Your task to perform on an android device: find which apps use the phone's location Image 0: 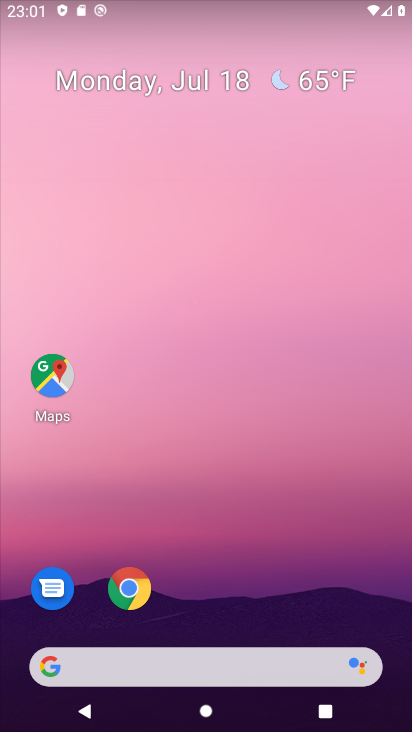
Step 0: press home button
Your task to perform on an android device: find which apps use the phone's location Image 1: 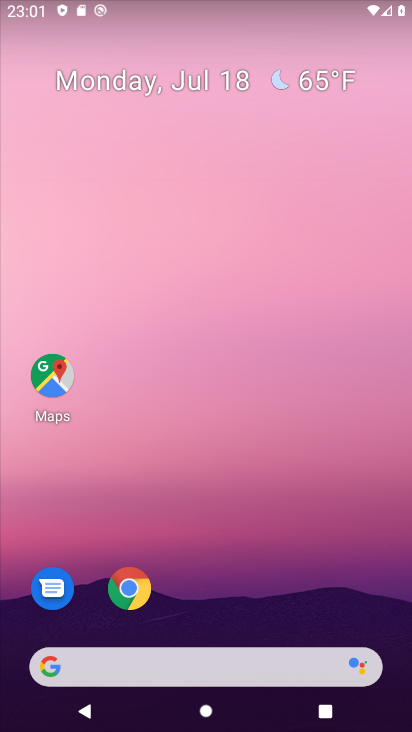
Step 1: drag from (299, 608) to (318, 116)
Your task to perform on an android device: find which apps use the phone's location Image 2: 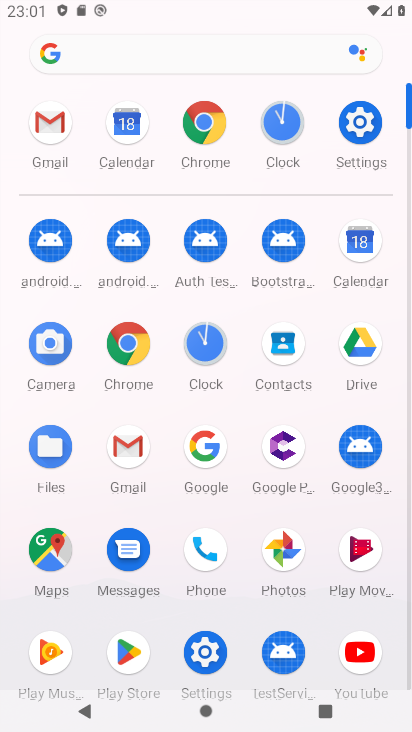
Step 2: click (358, 120)
Your task to perform on an android device: find which apps use the phone's location Image 3: 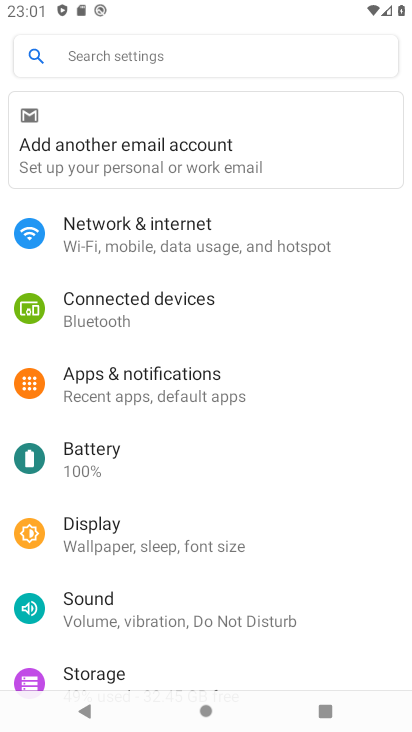
Step 3: drag from (220, 465) to (205, 108)
Your task to perform on an android device: find which apps use the phone's location Image 4: 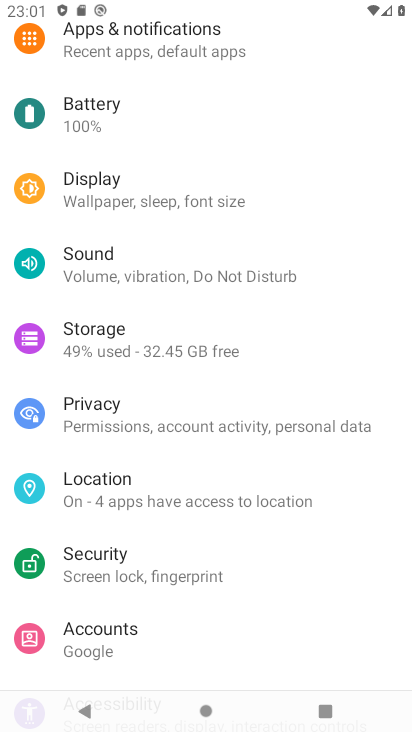
Step 4: click (101, 474)
Your task to perform on an android device: find which apps use the phone's location Image 5: 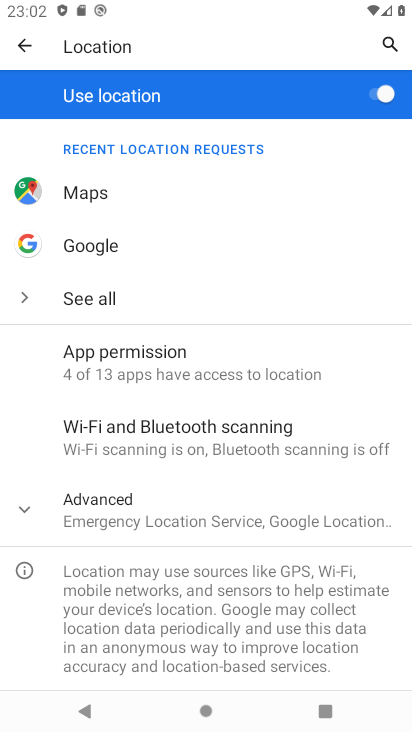
Step 5: click (169, 363)
Your task to perform on an android device: find which apps use the phone's location Image 6: 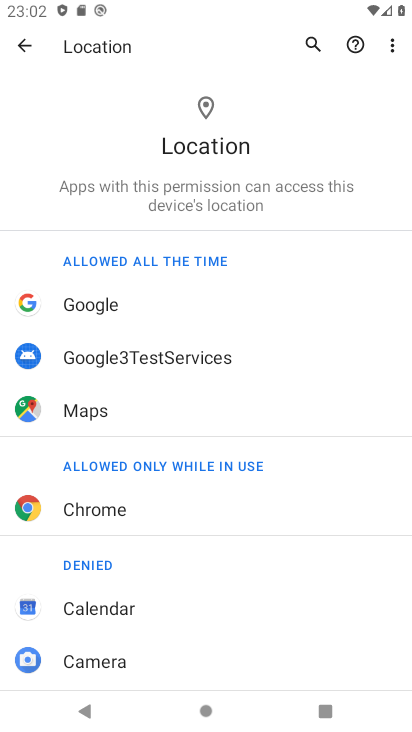
Step 6: task complete